Your task to perform on an android device: Clear all items from cart on target.com. Search for apple airpods on target.com, select the first entry, add it to the cart, then select checkout. Image 0: 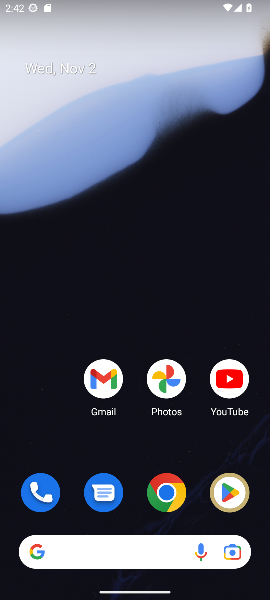
Step 0: click (165, 496)
Your task to perform on an android device: Clear all items from cart on target.com. Search for apple airpods on target.com, select the first entry, add it to the cart, then select checkout. Image 1: 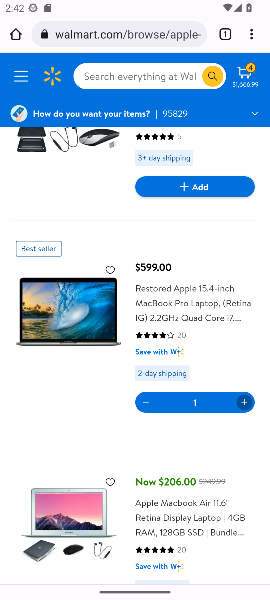
Step 1: click (140, 21)
Your task to perform on an android device: Clear all items from cart on target.com. Search for apple airpods on target.com, select the first entry, add it to the cart, then select checkout. Image 2: 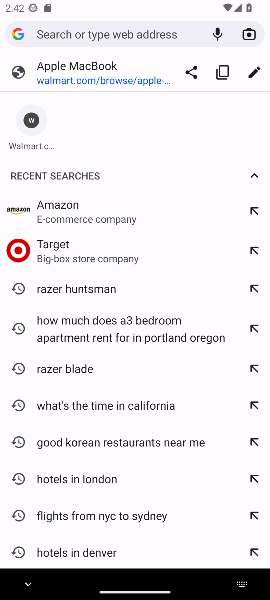
Step 2: click (43, 251)
Your task to perform on an android device: Clear all items from cart on target.com. Search for apple airpods on target.com, select the first entry, add it to the cart, then select checkout. Image 3: 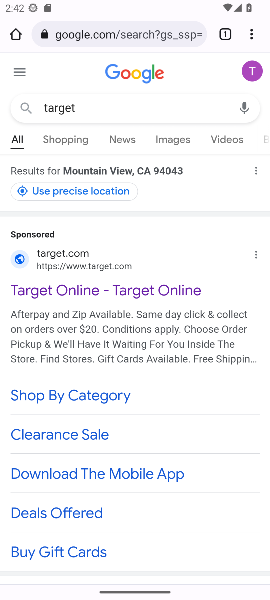
Step 3: click (28, 292)
Your task to perform on an android device: Clear all items from cart on target.com. Search for apple airpods on target.com, select the first entry, add it to the cart, then select checkout. Image 4: 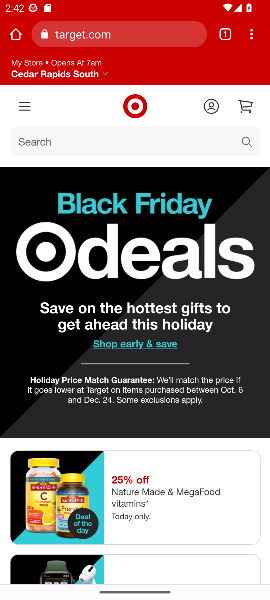
Step 4: click (244, 105)
Your task to perform on an android device: Clear all items from cart on target.com. Search for apple airpods on target.com, select the first entry, add it to the cart, then select checkout. Image 5: 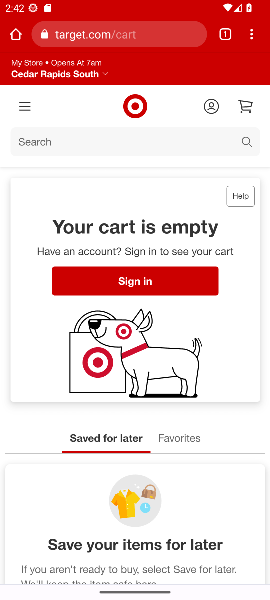
Step 5: click (54, 135)
Your task to perform on an android device: Clear all items from cart on target.com. Search for apple airpods on target.com, select the first entry, add it to the cart, then select checkout. Image 6: 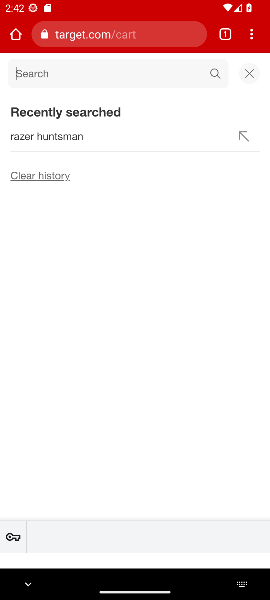
Step 6: type "apple airpods"
Your task to perform on an android device: Clear all items from cart on target.com. Search for apple airpods on target.com, select the first entry, add it to the cart, then select checkout. Image 7: 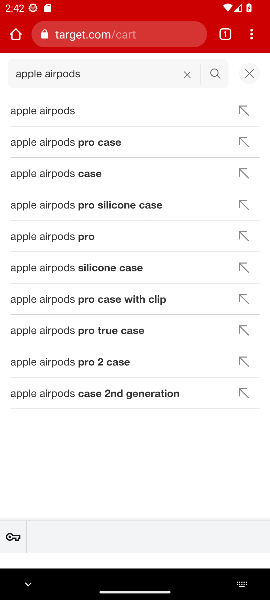
Step 7: click (49, 112)
Your task to perform on an android device: Clear all items from cart on target.com. Search for apple airpods on target.com, select the first entry, add it to the cart, then select checkout. Image 8: 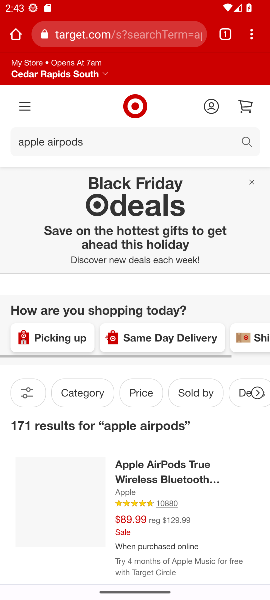
Step 8: drag from (183, 458) to (175, 226)
Your task to perform on an android device: Clear all items from cart on target.com. Search for apple airpods on target.com, select the first entry, add it to the cart, then select checkout. Image 9: 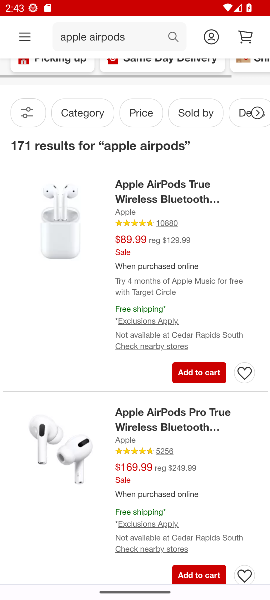
Step 9: click (199, 372)
Your task to perform on an android device: Clear all items from cart on target.com. Search for apple airpods on target.com, select the first entry, add it to the cart, then select checkout. Image 10: 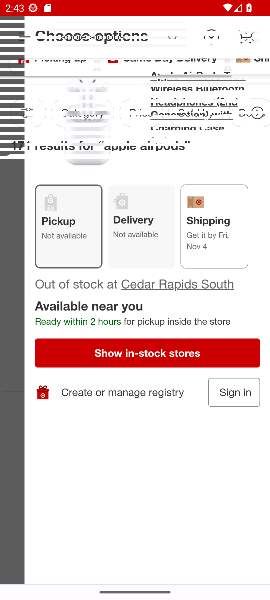
Step 10: task complete